Your task to perform on an android device: toggle pop-ups in chrome Image 0: 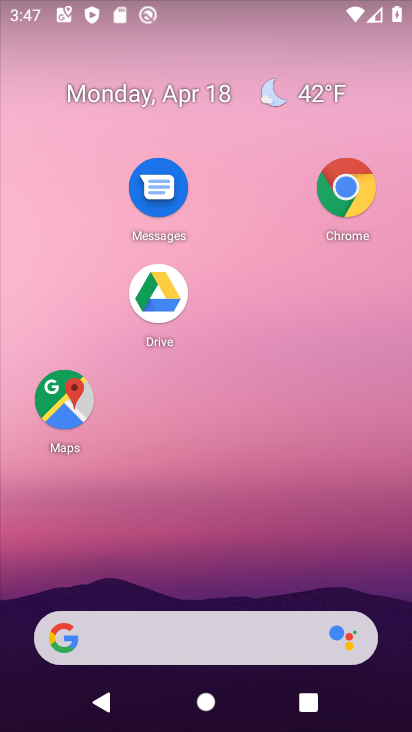
Step 0: click (353, 187)
Your task to perform on an android device: toggle pop-ups in chrome Image 1: 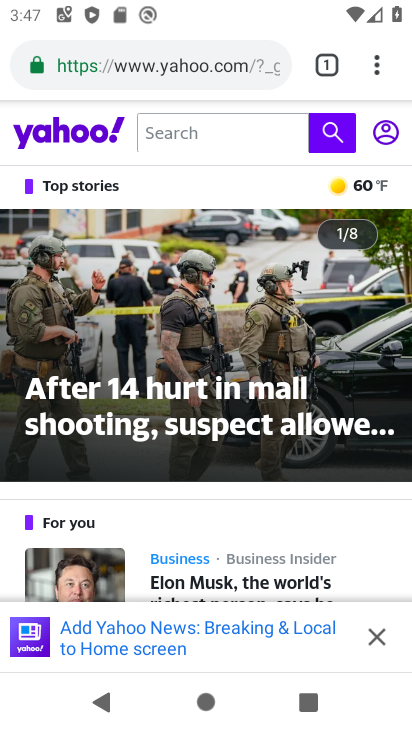
Step 1: click (380, 70)
Your task to perform on an android device: toggle pop-ups in chrome Image 2: 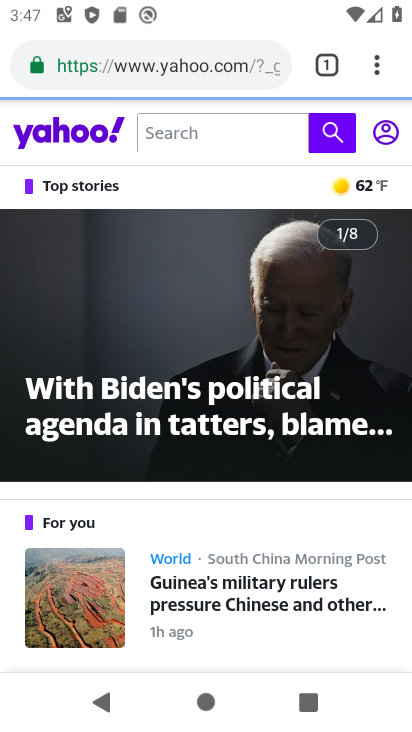
Step 2: click (386, 62)
Your task to perform on an android device: toggle pop-ups in chrome Image 3: 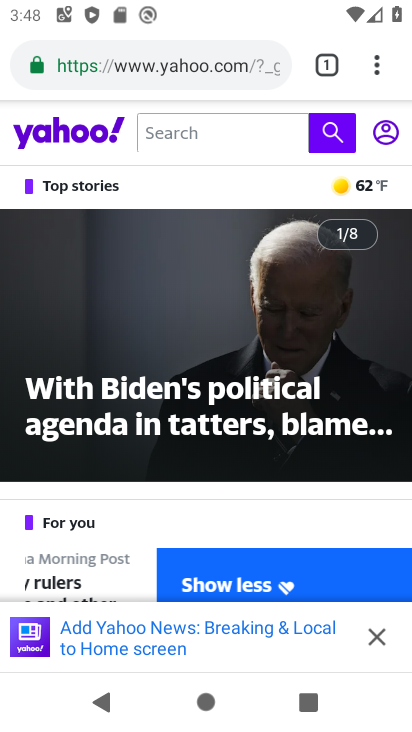
Step 3: click (397, 63)
Your task to perform on an android device: toggle pop-ups in chrome Image 4: 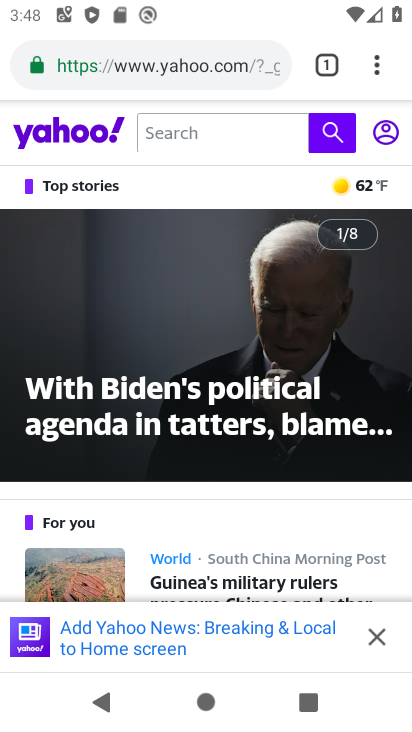
Step 4: click (389, 63)
Your task to perform on an android device: toggle pop-ups in chrome Image 5: 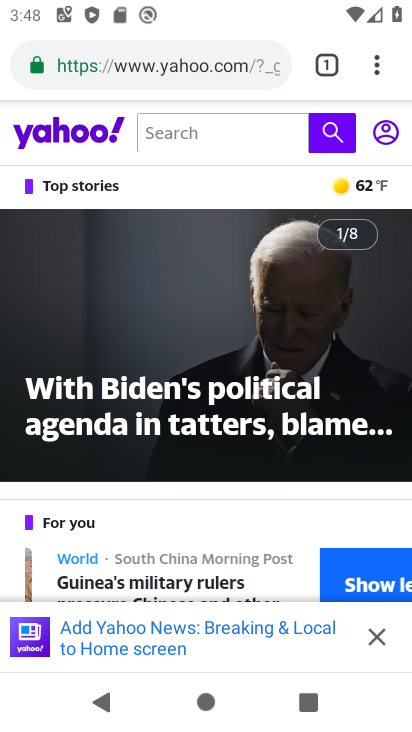
Step 5: click (380, 64)
Your task to perform on an android device: toggle pop-ups in chrome Image 6: 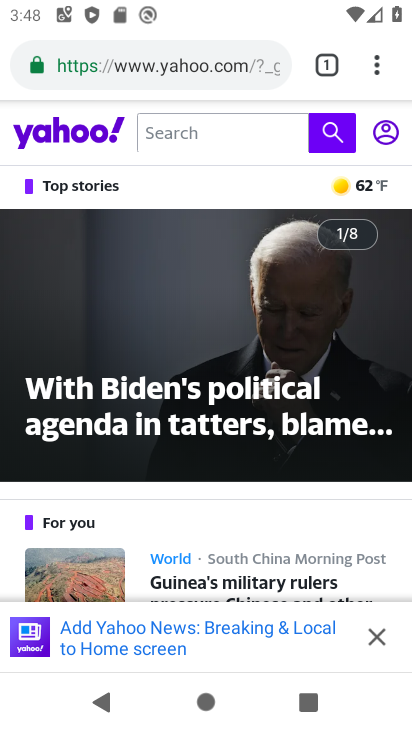
Step 6: click (381, 61)
Your task to perform on an android device: toggle pop-ups in chrome Image 7: 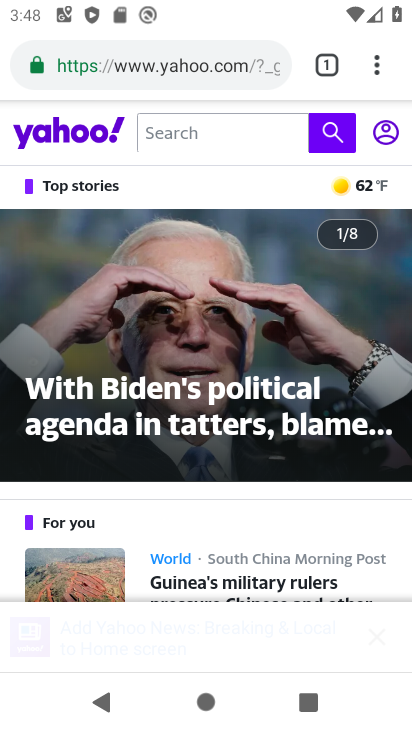
Step 7: click (393, 70)
Your task to perform on an android device: toggle pop-ups in chrome Image 8: 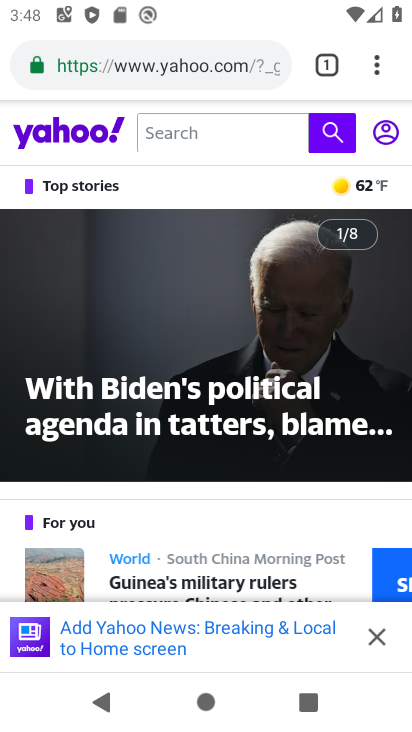
Step 8: click (397, 62)
Your task to perform on an android device: toggle pop-ups in chrome Image 9: 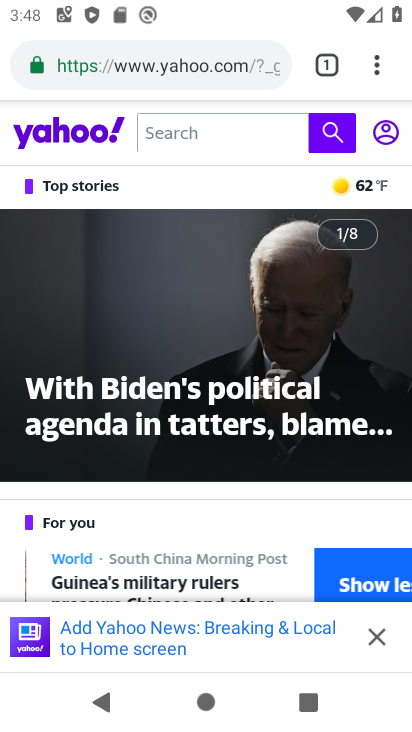
Step 9: click (380, 60)
Your task to perform on an android device: toggle pop-ups in chrome Image 10: 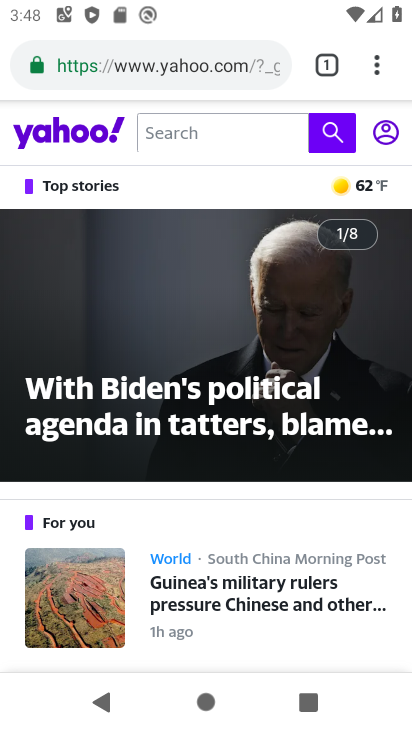
Step 10: click (357, 64)
Your task to perform on an android device: toggle pop-ups in chrome Image 11: 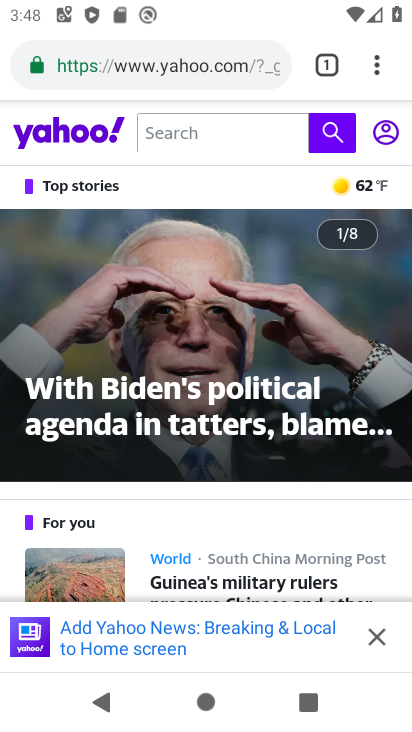
Step 11: click (405, 66)
Your task to perform on an android device: toggle pop-ups in chrome Image 12: 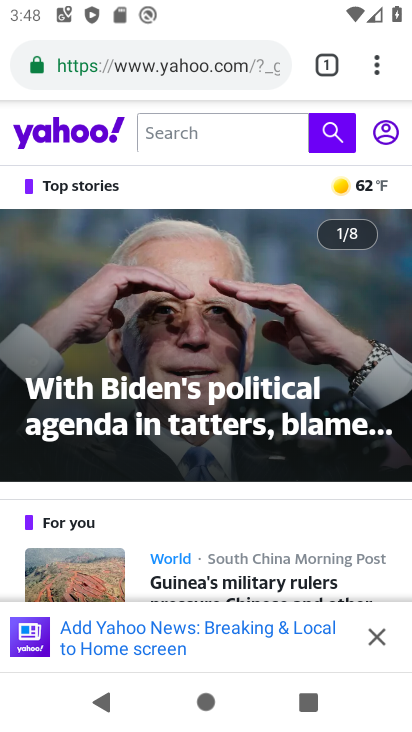
Step 12: click (374, 63)
Your task to perform on an android device: toggle pop-ups in chrome Image 13: 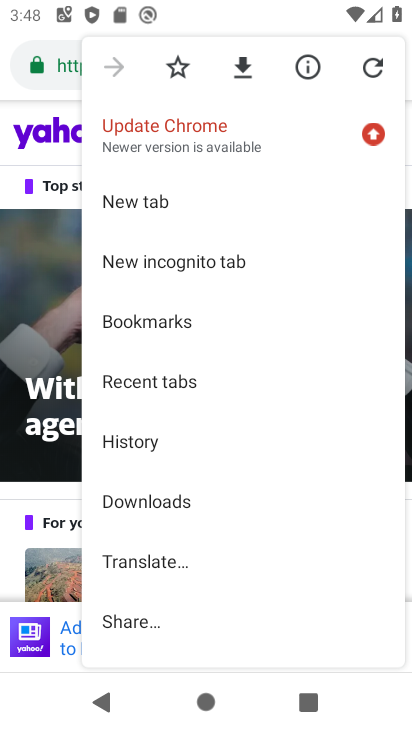
Step 13: drag from (247, 521) to (227, 429)
Your task to perform on an android device: toggle pop-ups in chrome Image 14: 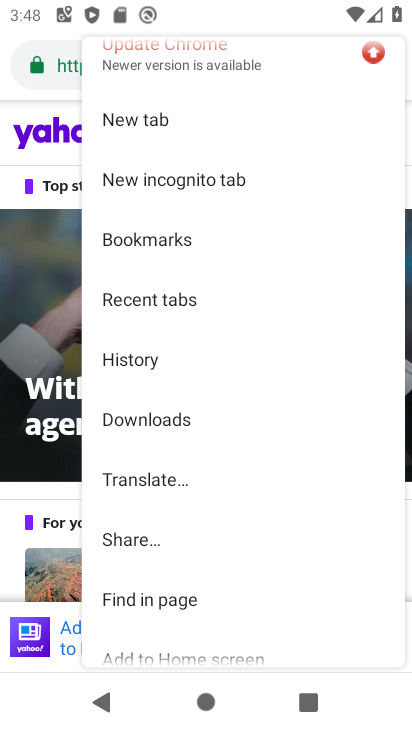
Step 14: drag from (192, 591) to (202, 516)
Your task to perform on an android device: toggle pop-ups in chrome Image 15: 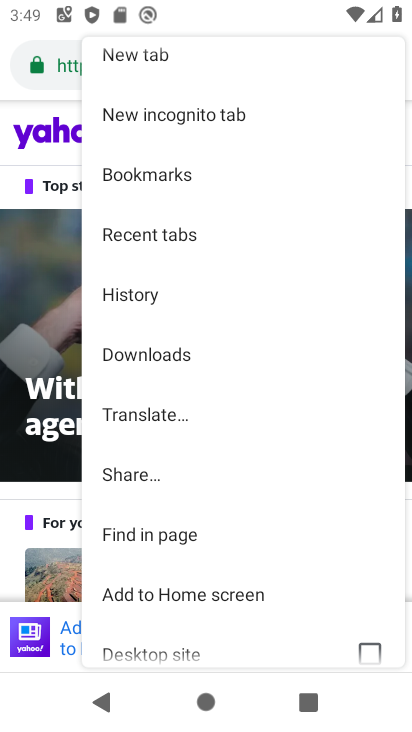
Step 15: drag from (160, 594) to (180, 522)
Your task to perform on an android device: toggle pop-ups in chrome Image 16: 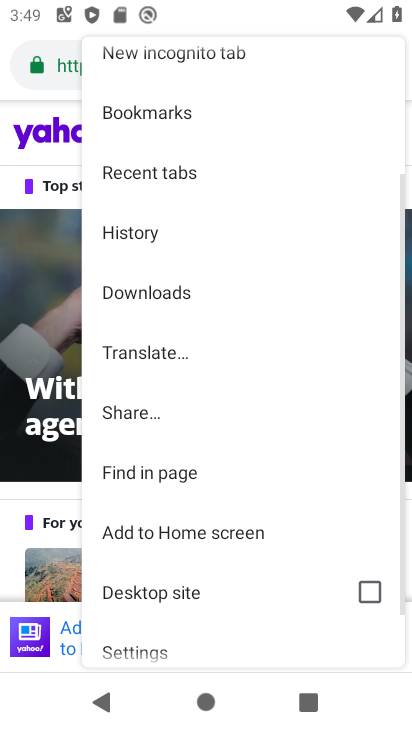
Step 16: drag from (215, 616) to (231, 533)
Your task to perform on an android device: toggle pop-ups in chrome Image 17: 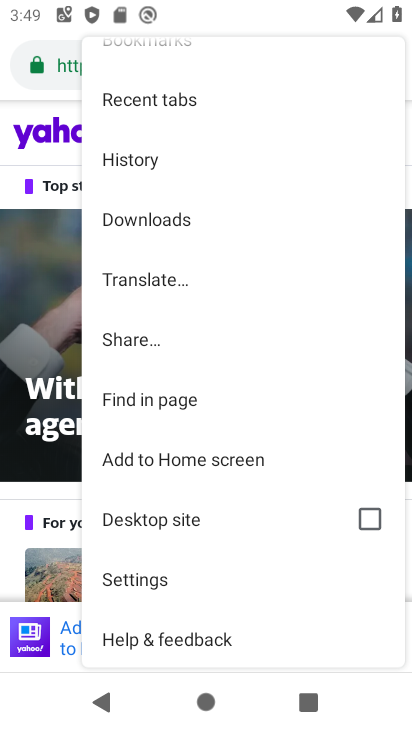
Step 17: click (144, 573)
Your task to perform on an android device: toggle pop-ups in chrome Image 18: 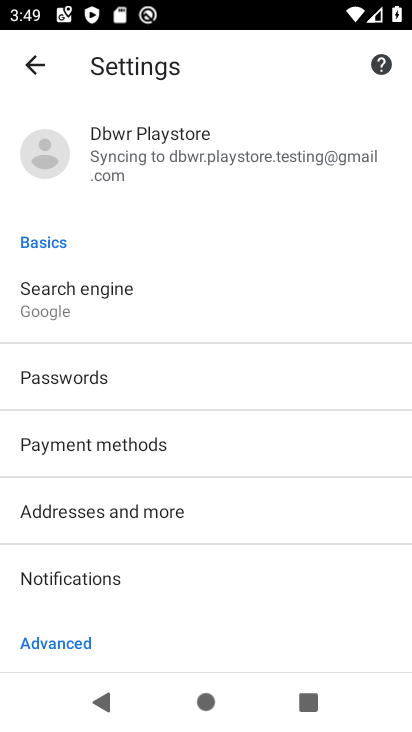
Step 18: drag from (164, 517) to (201, 446)
Your task to perform on an android device: toggle pop-ups in chrome Image 19: 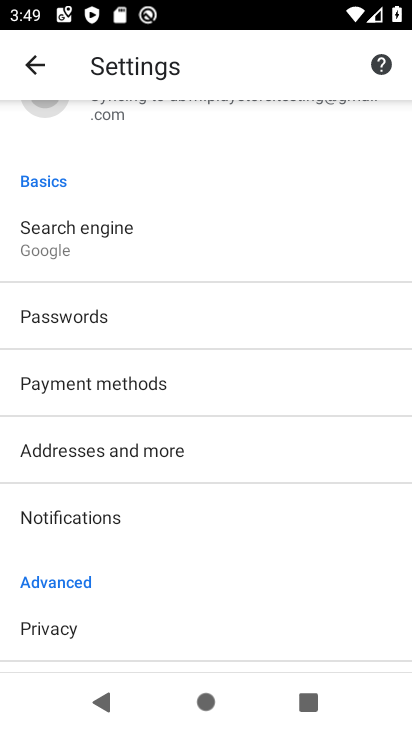
Step 19: drag from (213, 558) to (230, 446)
Your task to perform on an android device: toggle pop-ups in chrome Image 20: 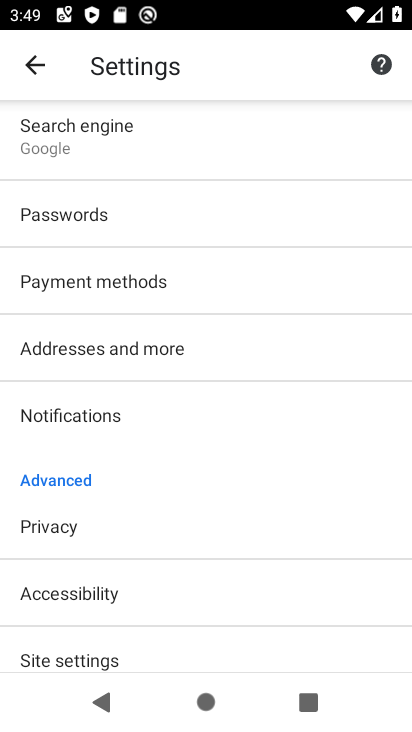
Step 20: drag from (195, 528) to (207, 454)
Your task to perform on an android device: toggle pop-ups in chrome Image 21: 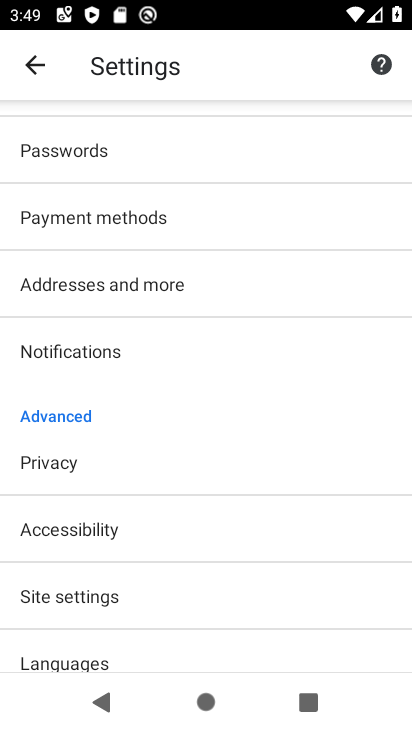
Step 21: drag from (190, 532) to (199, 456)
Your task to perform on an android device: toggle pop-ups in chrome Image 22: 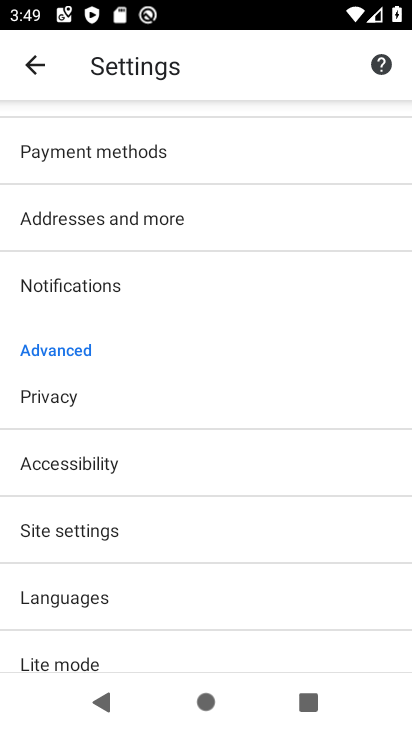
Step 22: drag from (153, 559) to (157, 494)
Your task to perform on an android device: toggle pop-ups in chrome Image 23: 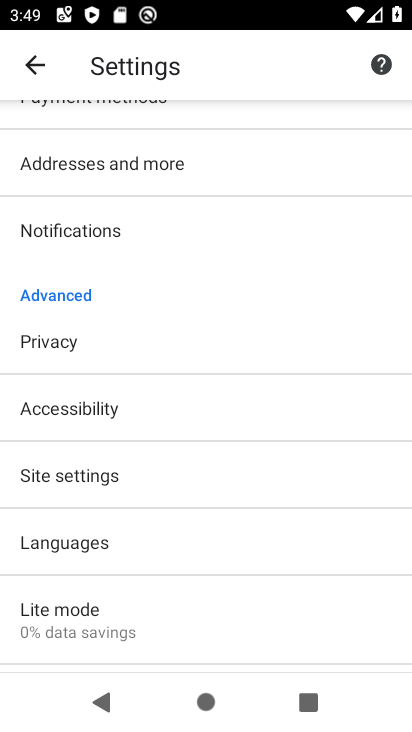
Step 23: click (98, 489)
Your task to perform on an android device: toggle pop-ups in chrome Image 24: 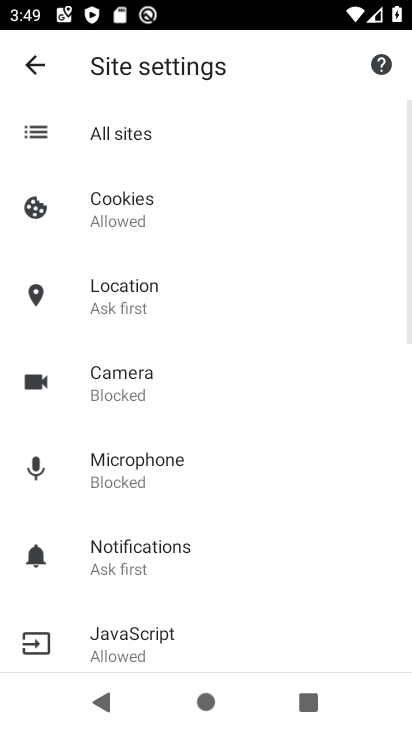
Step 24: drag from (159, 512) to (156, 437)
Your task to perform on an android device: toggle pop-ups in chrome Image 25: 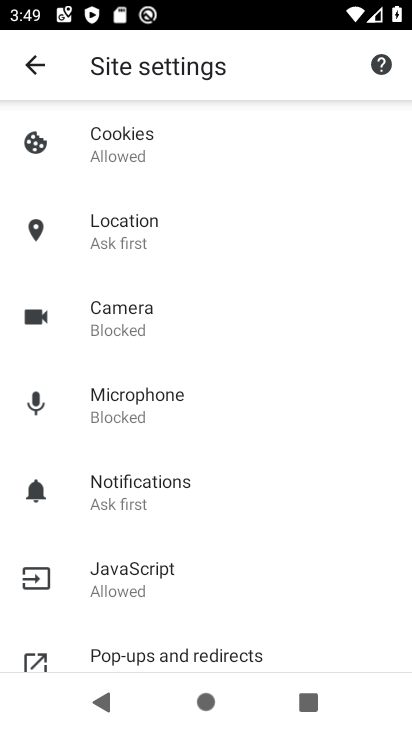
Step 25: drag from (154, 550) to (182, 480)
Your task to perform on an android device: toggle pop-ups in chrome Image 26: 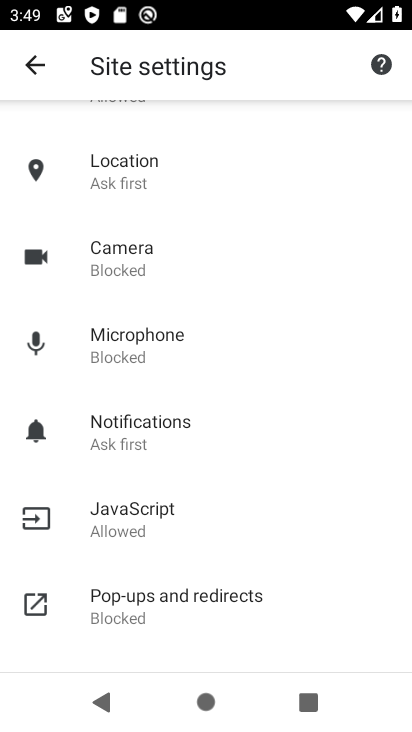
Step 26: click (185, 590)
Your task to perform on an android device: toggle pop-ups in chrome Image 27: 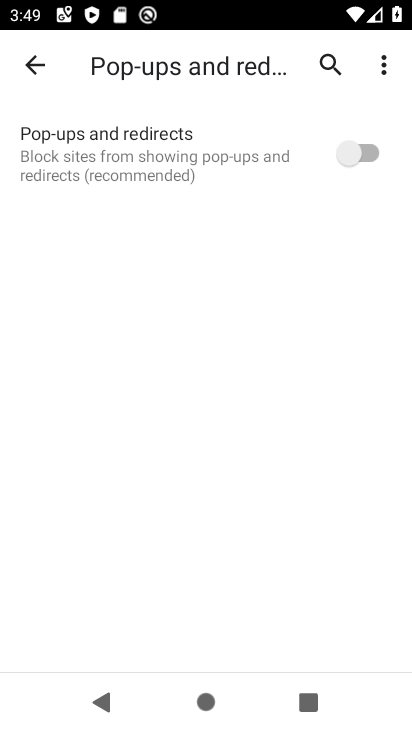
Step 27: click (352, 158)
Your task to perform on an android device: toggle pop-ups in chrome Image 28: 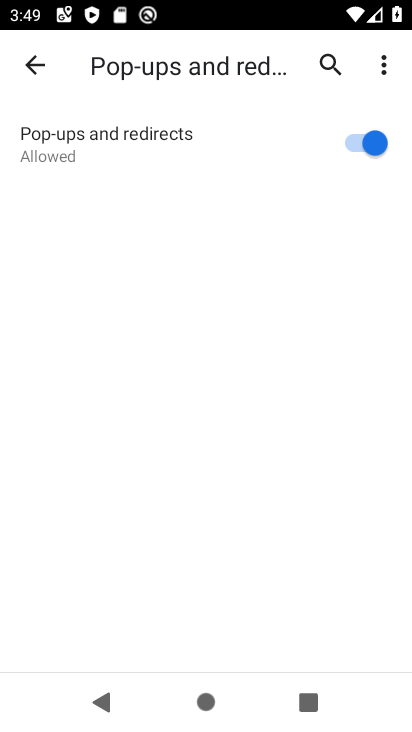
Step 28: task complete